Your task to perform on an android device: stop showing notifications on the lock screen Image 0: 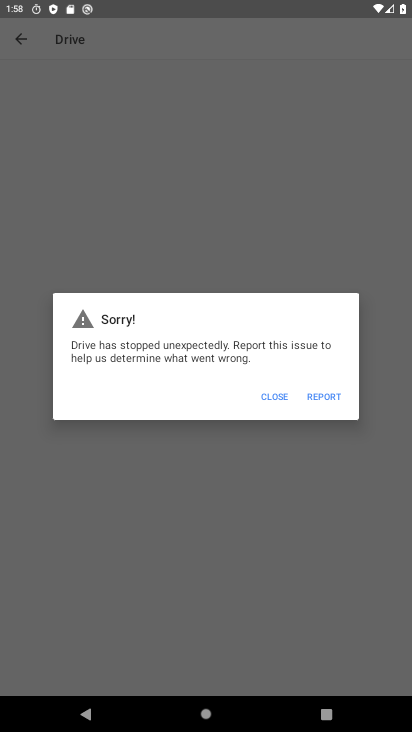
Step 0: drag from (243, 622) to (348, 276)
Your task to perform on an android device: stop showing notifications on the lock screen Image 1: 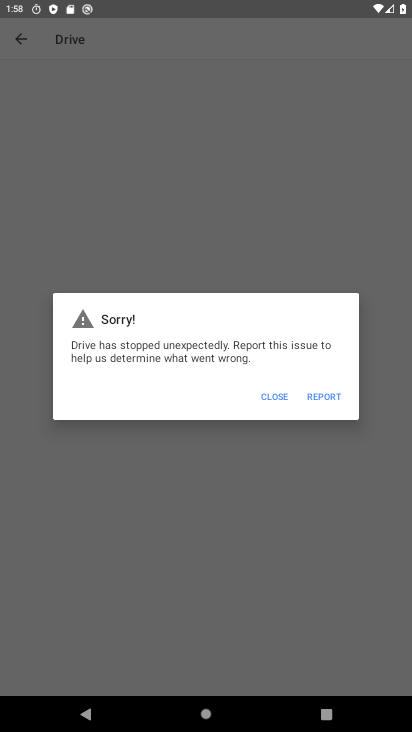
Step 1: press home button
Your task to perform on an android device: stop showing notifications on the lock screen Image 2: 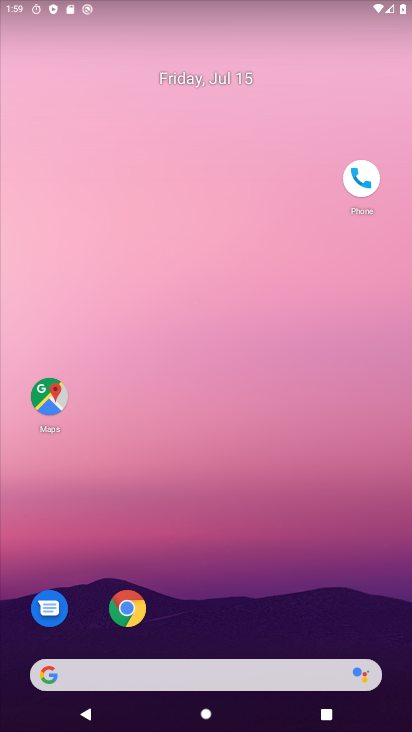
Step 2: drag from (188, 627) to (234, 315)
Your task to perform on an android device: stop showing notifications on the lock screen Image 3: 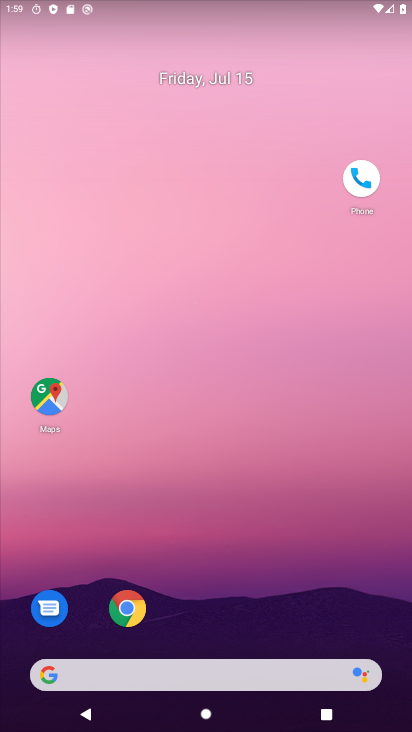
Step 3: drag from (211, 626) to (276, 99)
Your task to perform on an android device: stop showing notifications on the lock screen Image 4: 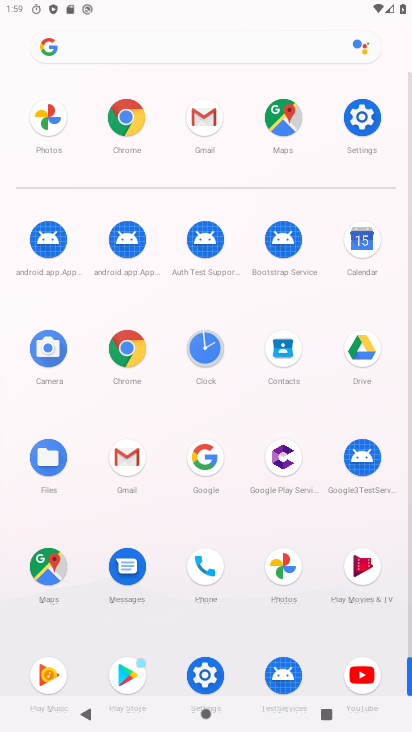
Step 4: click (206, 671)
Your task to perform on an android device: stop showing notifications on the lock screen Image 5: 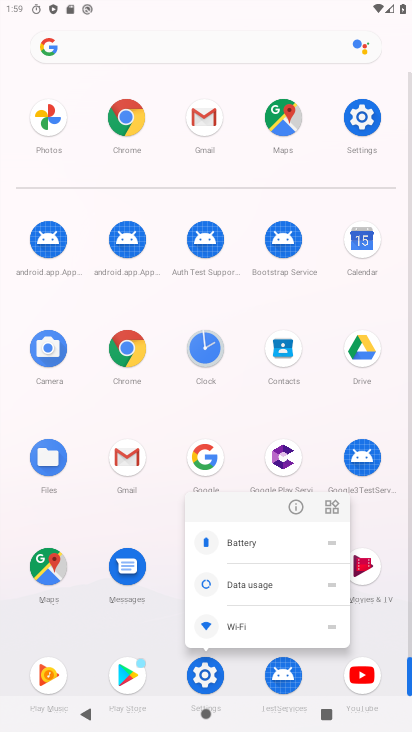
Step 5: click (293, 506)
Your task to perform on an android device: stop showing notifications on the lock screen Image 6: 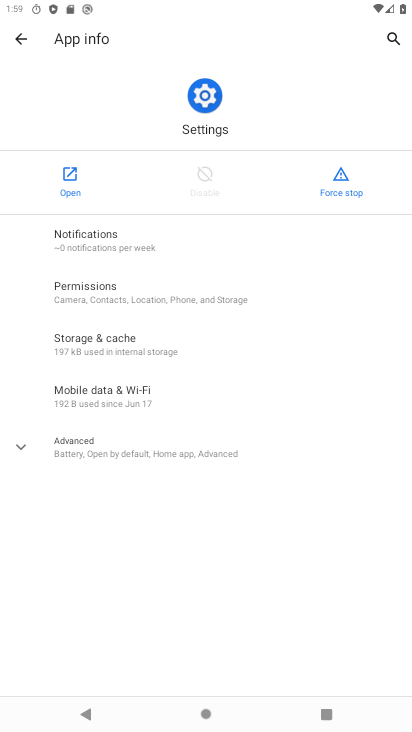
Step 6: click (68, 174)
Your task to perform on an android device: stop showing notifications on the lock screen Image 7: 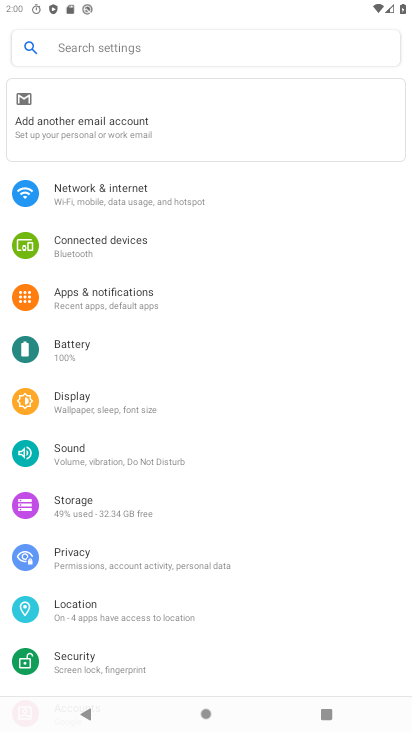
Step 7: click (97, 299)
Your task to perform on an android device: stop showing notifications on the lock screen Image 8: 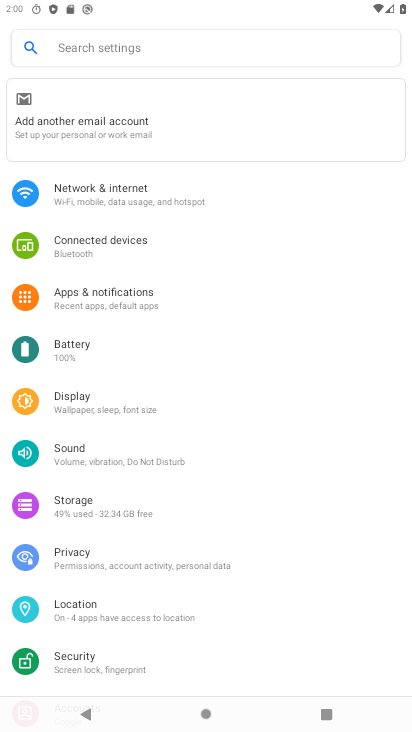
Step 8: click (97, 299)
Your task to perform on an android device: stop showing notifications on the lock screen Image 9: 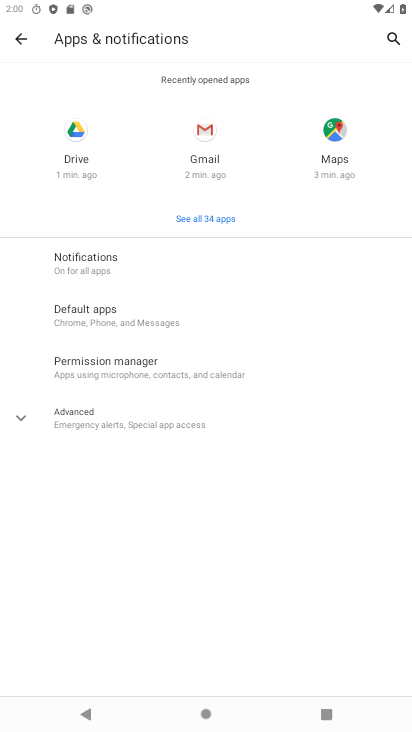
Step 9: click (132, 259)
Your task to perform on an android device: stop showing notifications on the lock screen Image 10: 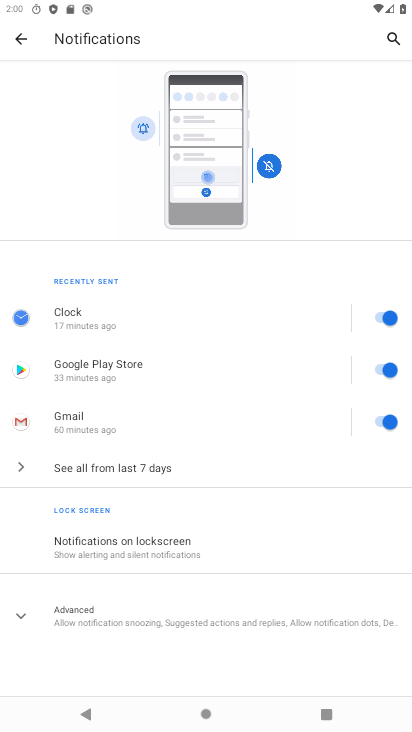
Step 10: click (154, 548)
Your task to perform on an android device: stop showing notifications on the lock screen Image 11: 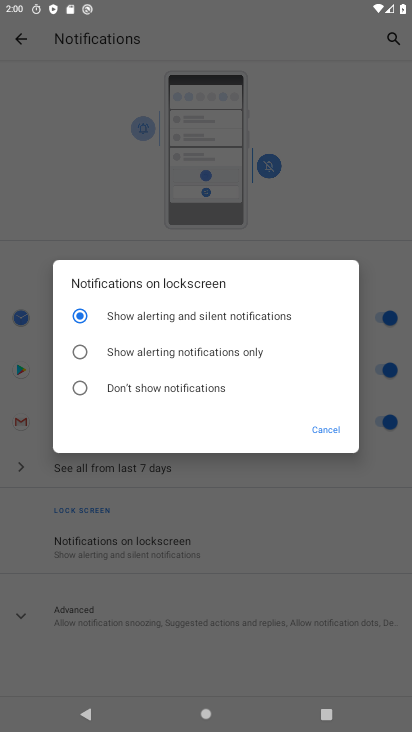
Step 11: drag from (156, 525) to (210, 265)
Your task to perform on an android device: stop showing notifications on the lock screen Image 12: 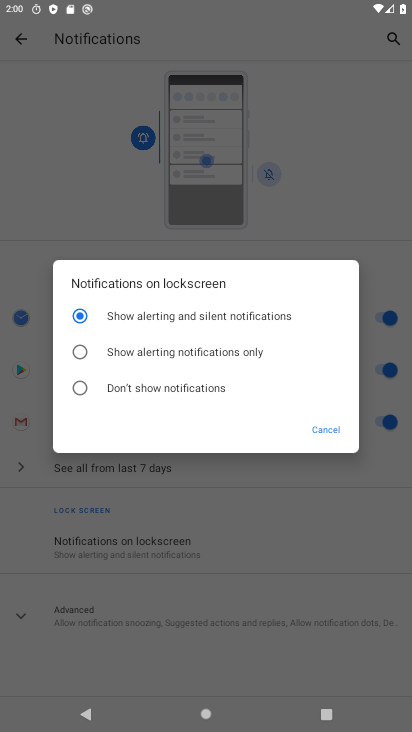
Step 12: click (99, 393)
Your task to perform on an android device: stop showing notifications on the lock screen Image 13: 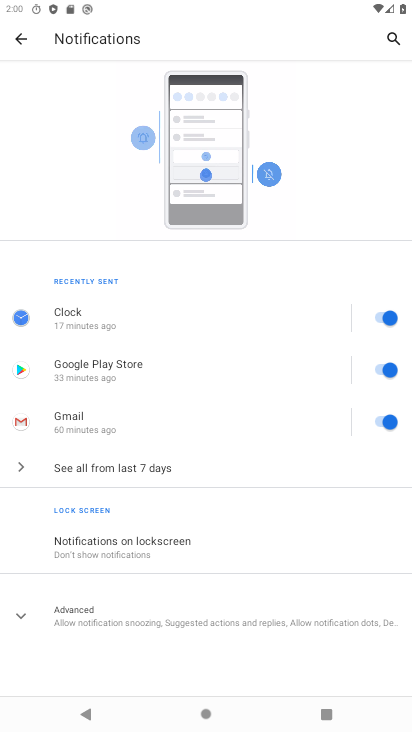
Step 13: task complete